Your task to perform on an android device: open app "Life360: Find Family & Friends" (install if not already installed) and go to login screen Image 0: 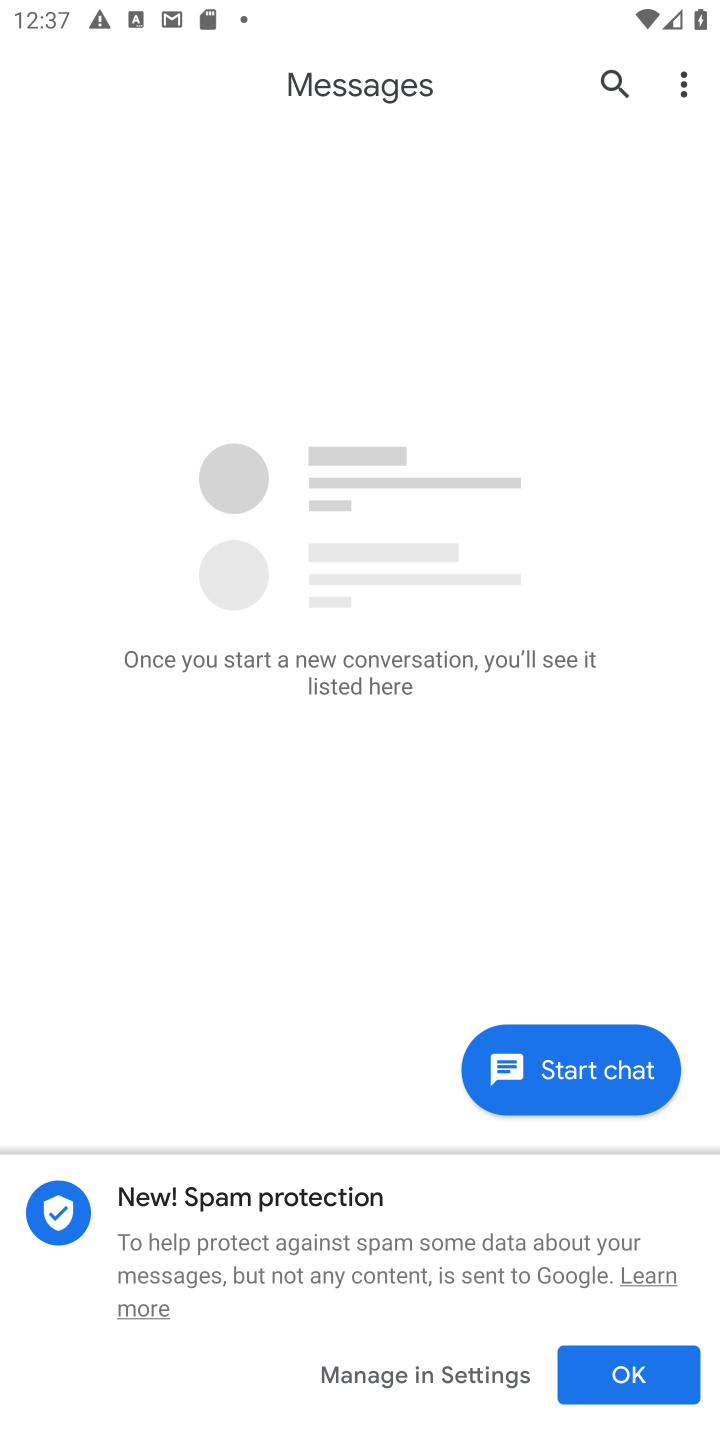
Step 0: press home button
Your task to perform on an android device: open app "Life360: Find Family & Friends" (install if not already installed) and go to login screen Image 1: 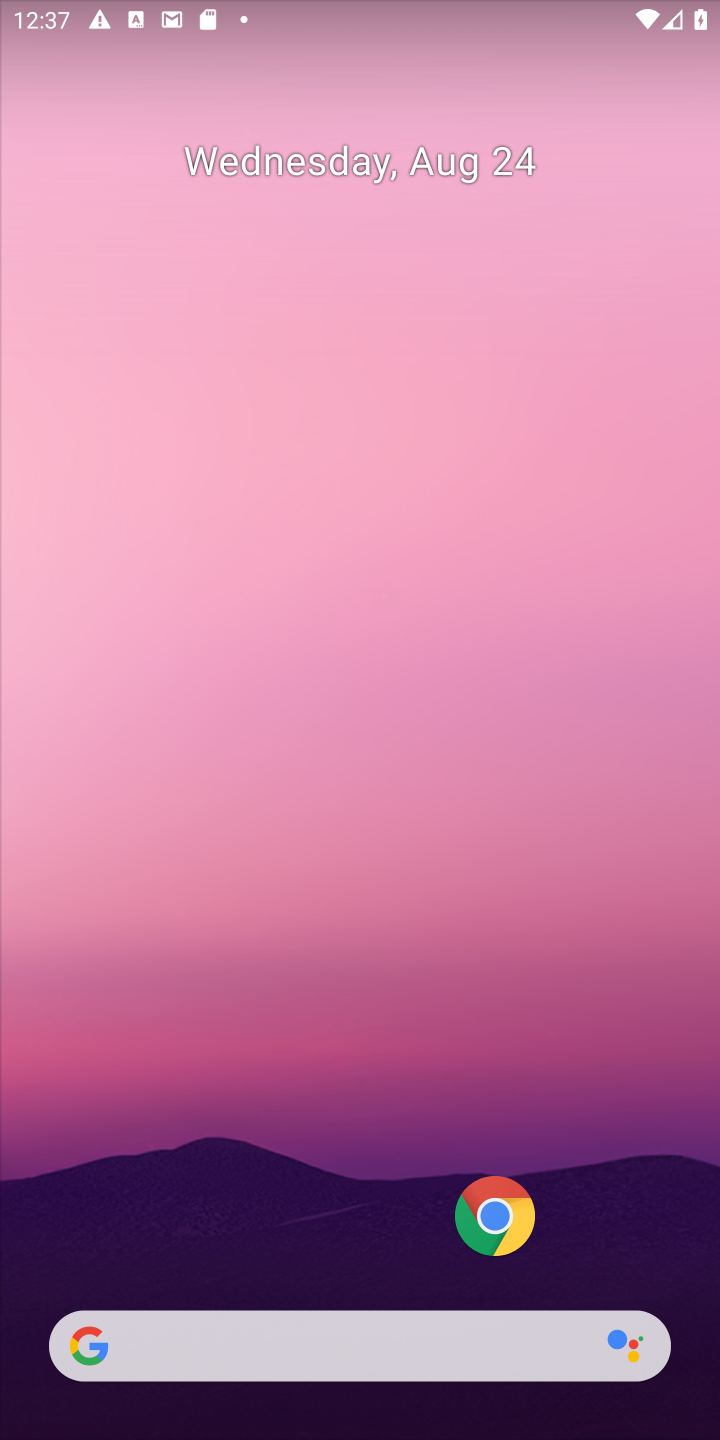
Step 1: drag from (224, 1315) to (304, 98)
Your task to perform on an android device: open app "Life360: Find Family & Friends" (install if not already installed) and go to login screen Image 2: 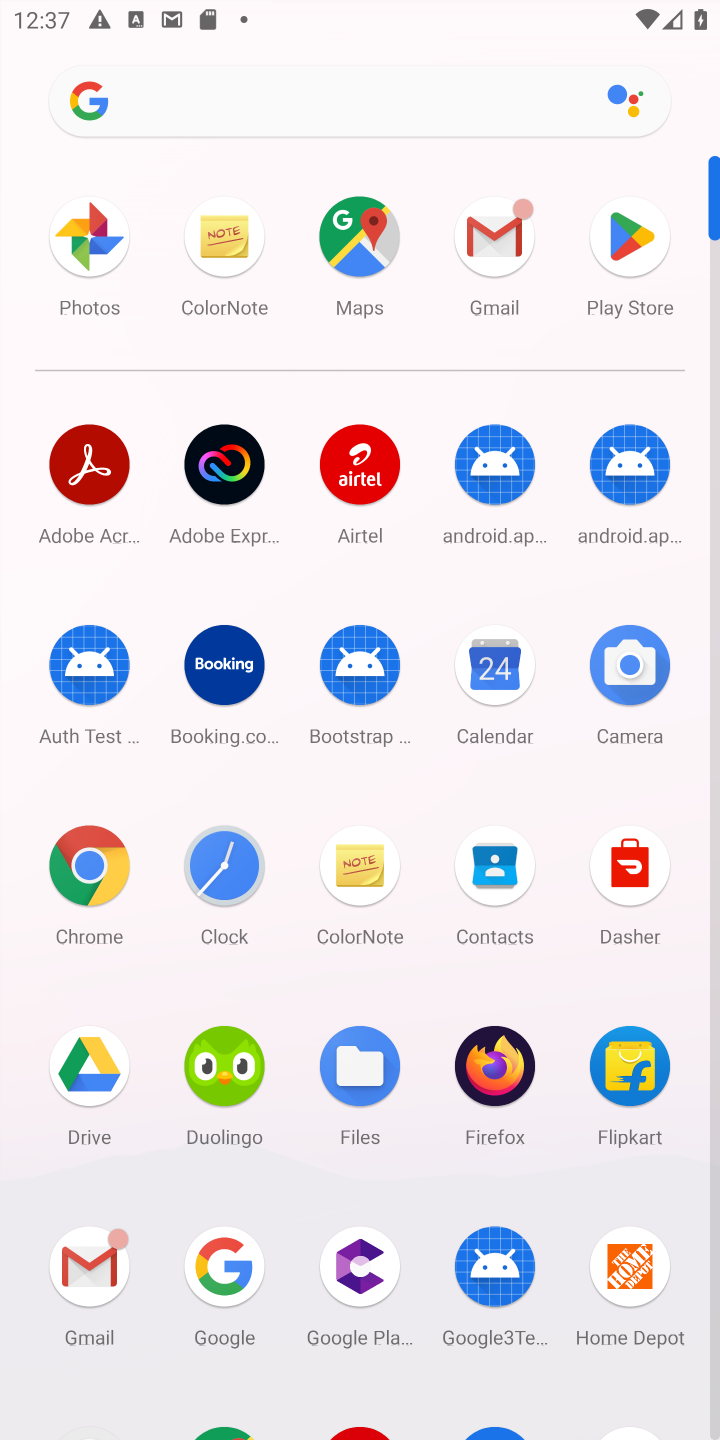
Step 2: click (631, 244)
Your task to perform on an android device: open app "Life360: Find Family & Friends" (install if not already installed) and go to login screen Image 3: 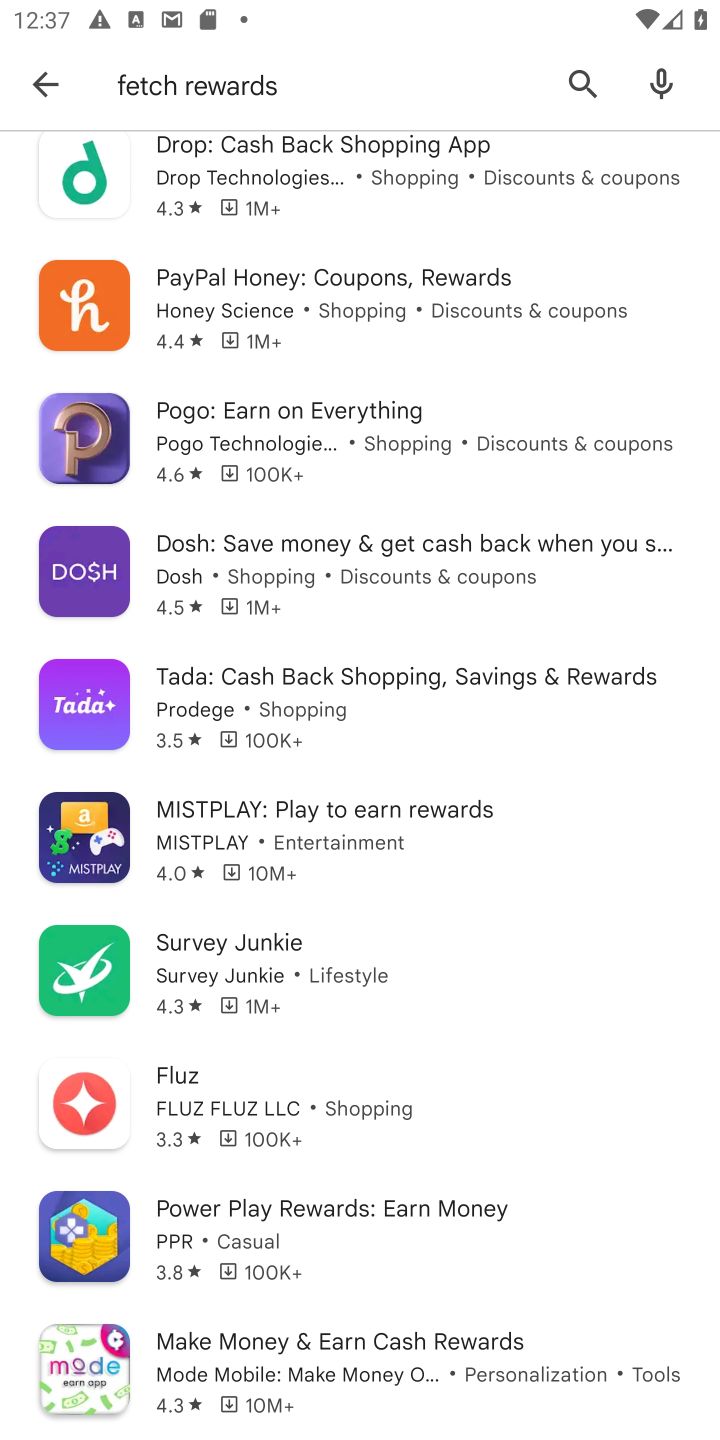
Step 3: press back button
Your task to perform on an android device: open app "Life360: Find Family & Friends" (install if not already installed) and go to login screen Image 4: 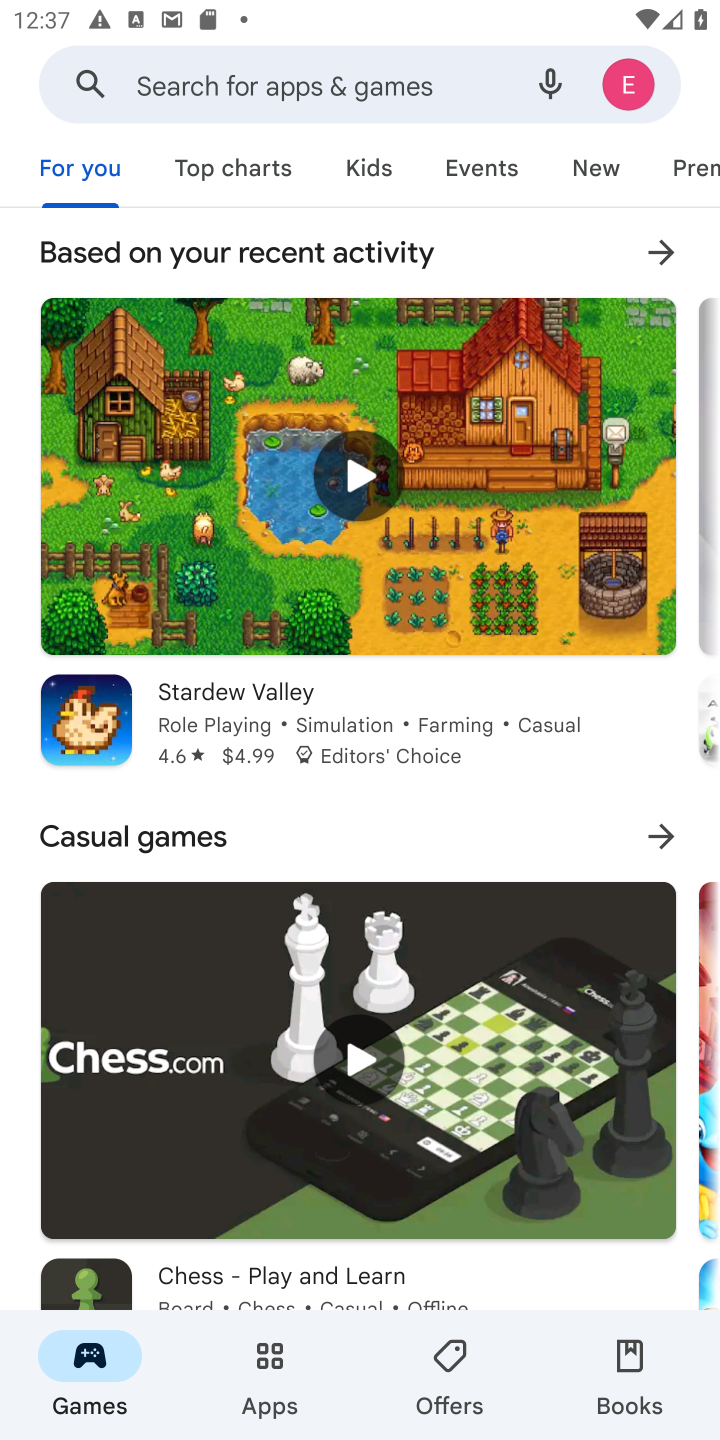
Step 4: click (403, 86)
Your task to perform on an android device: open app "Life360: Find Family & Friends" (install if not already installed) and go to login screen Image 5: 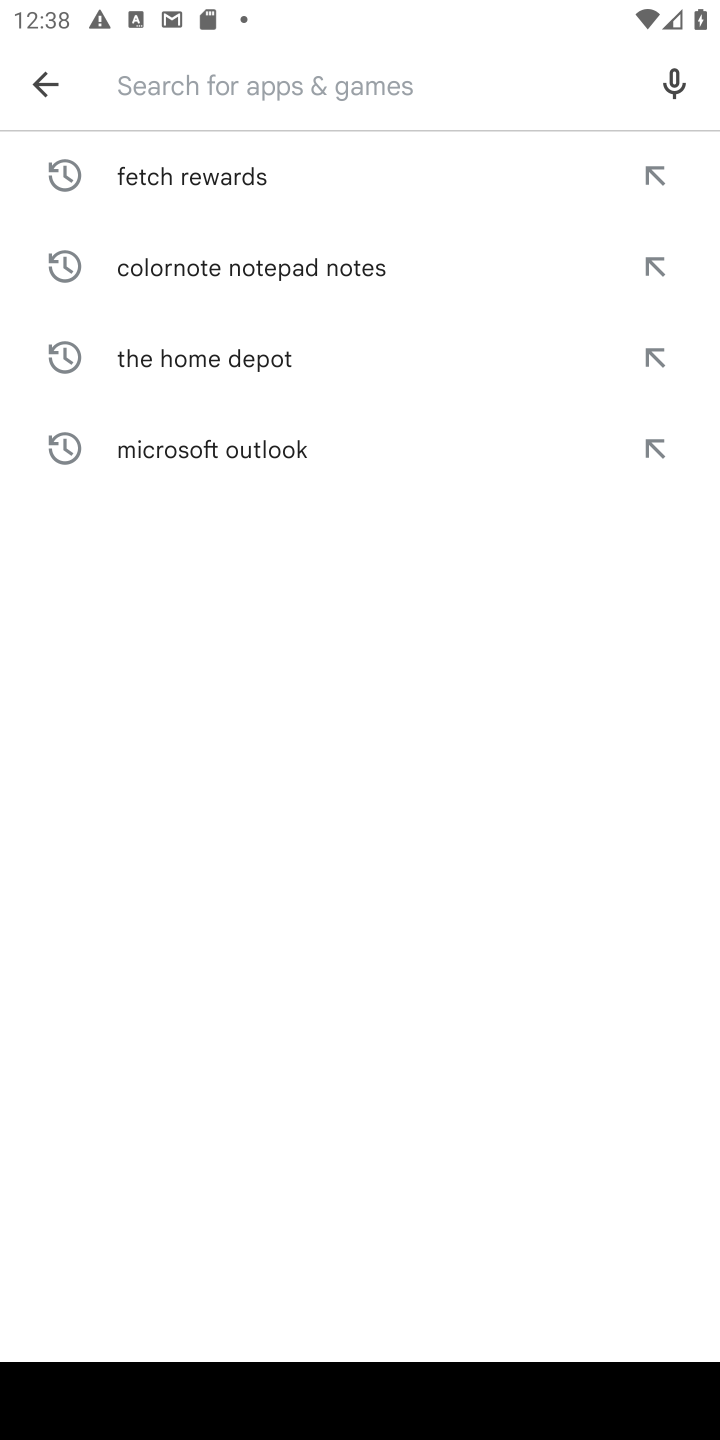
Step 5: type "Life360: Find Family & Friends"
Your task to perform on an android device: open app "Life360: Find Family & Friends" (install if not already installed) and go to login screen Image 6: 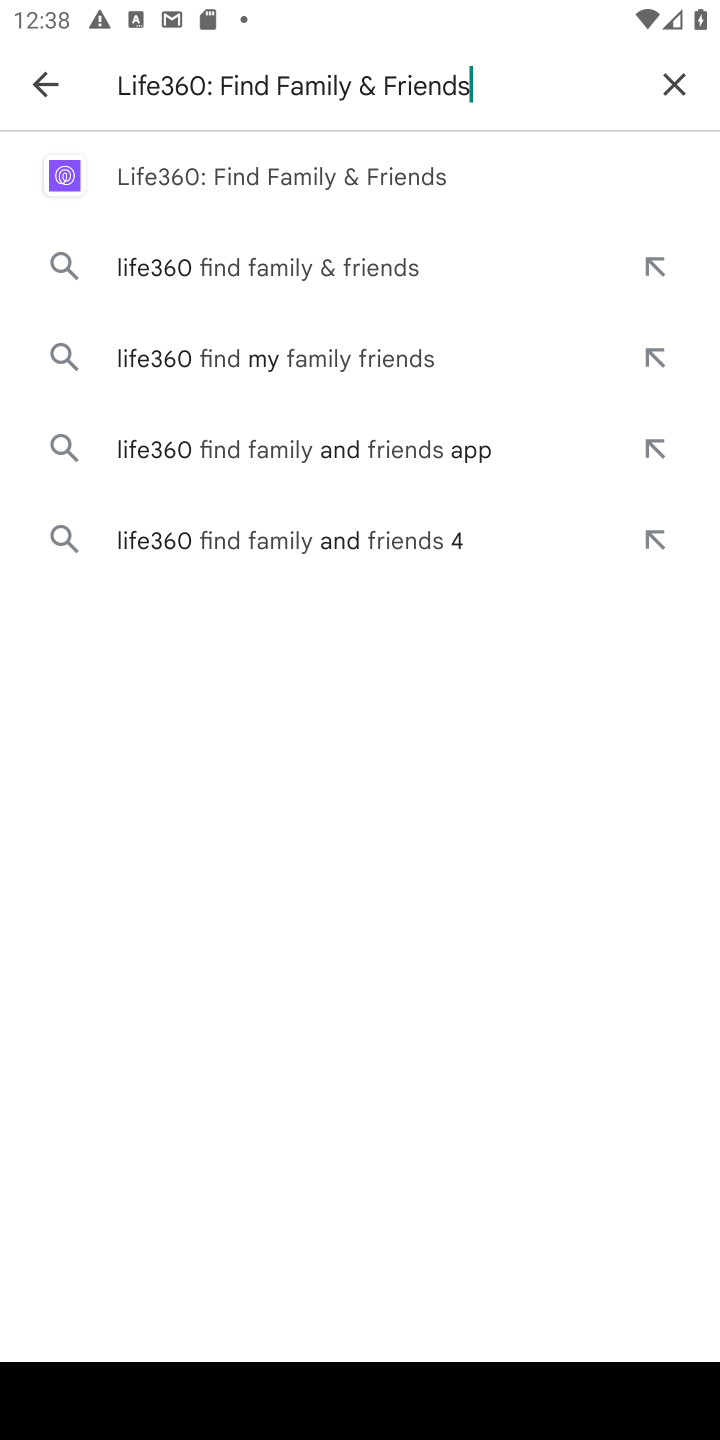
Step 6: click (271, 180)
Your task to perform on an android device: open app "Life360: Find Family & Friends" (install if not already installed) and go to login screen Image 7: 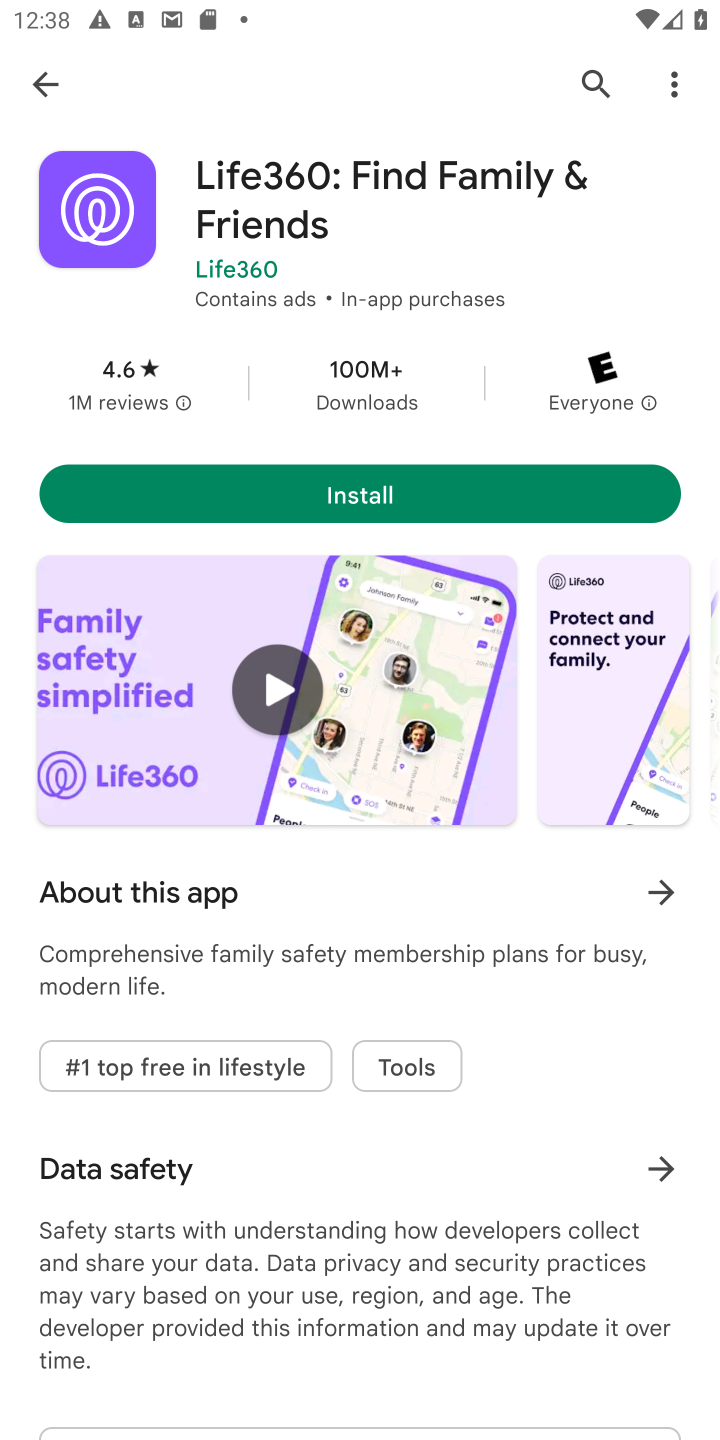
Step 7: click (400, 490)
Your task to perform on an android device: open app "Life360: Find Family & Friends" (install if not already installed) and go to login screen Image 8: 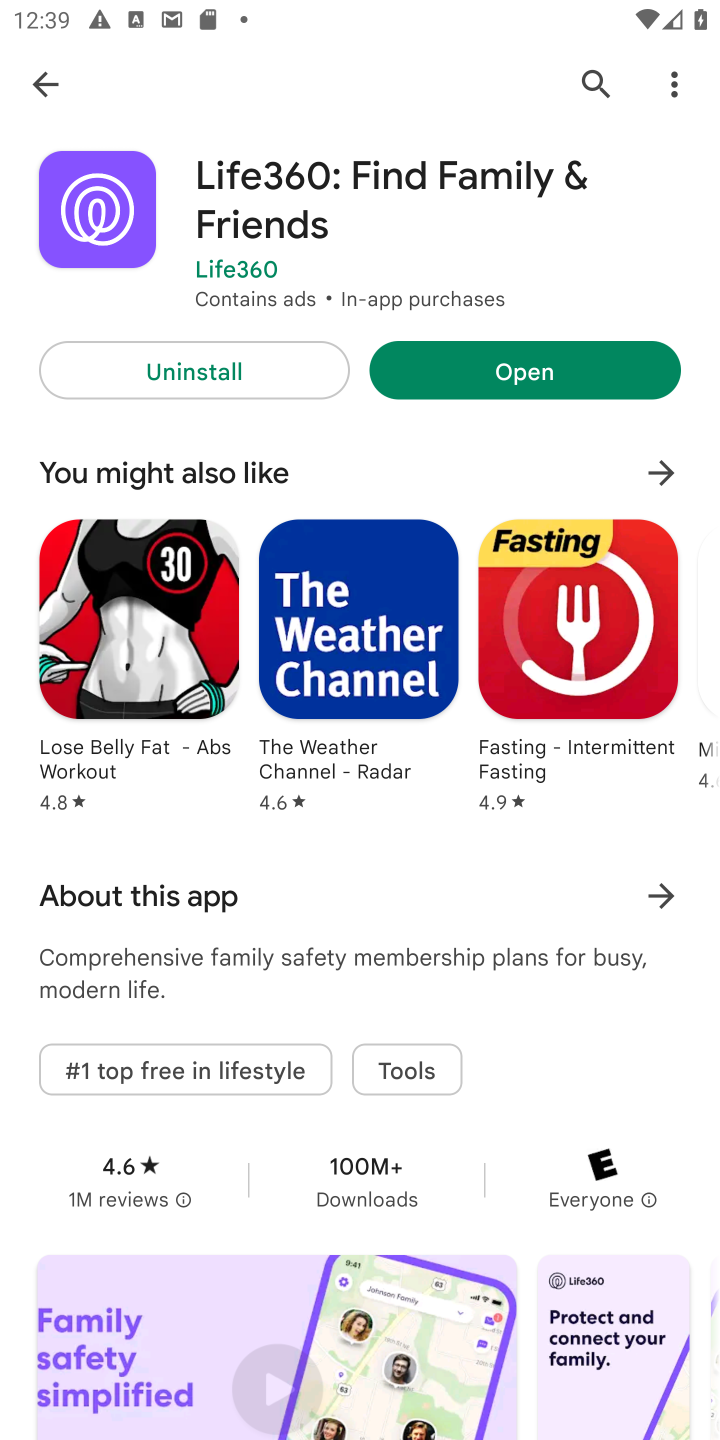
Step 8: click (526, 367)
Your task to perform on an android device: open app "Life360: Find Family & Friends" (install if not already installed) and go to login screen Image 9: 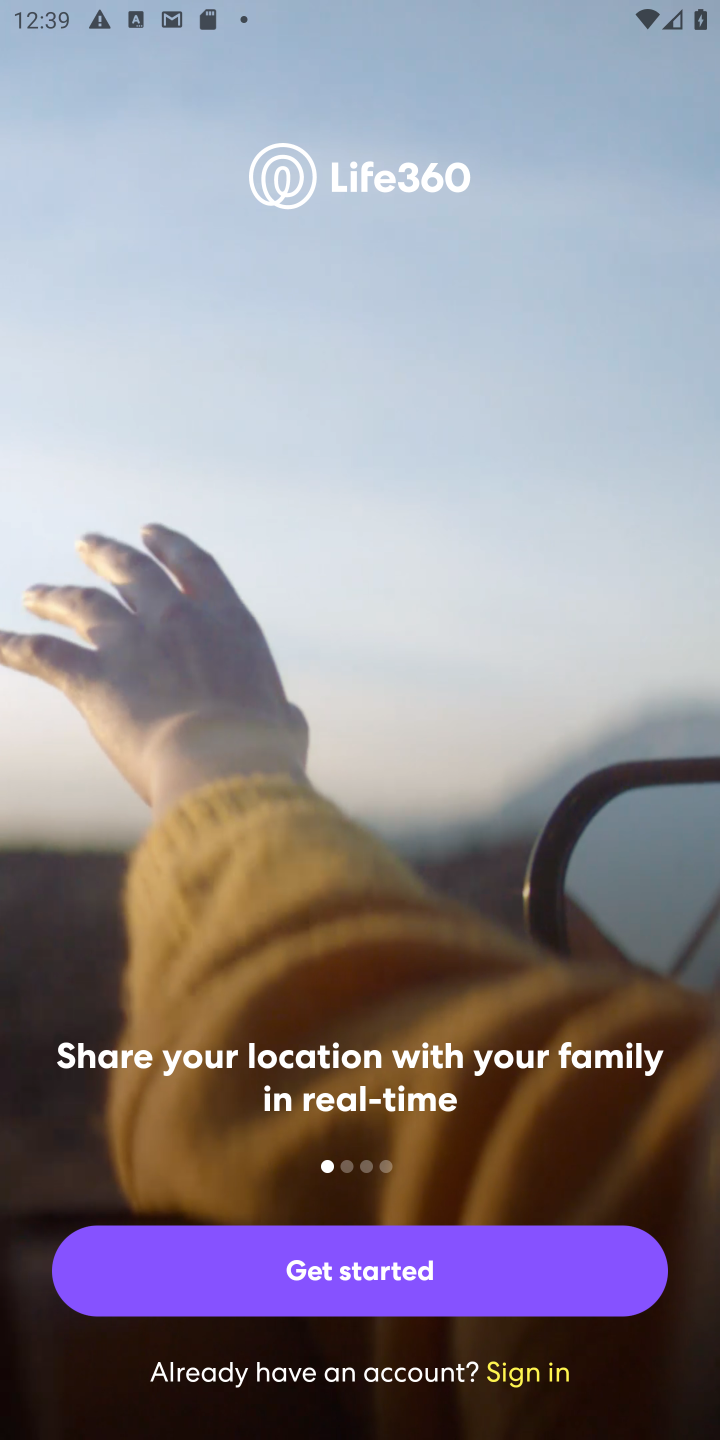
Step 9: click (546, 1370)
Your task to perform on an android device: open app "Life360: Find Family & Friends" (install if not already installed) and go to login screen Image 10: 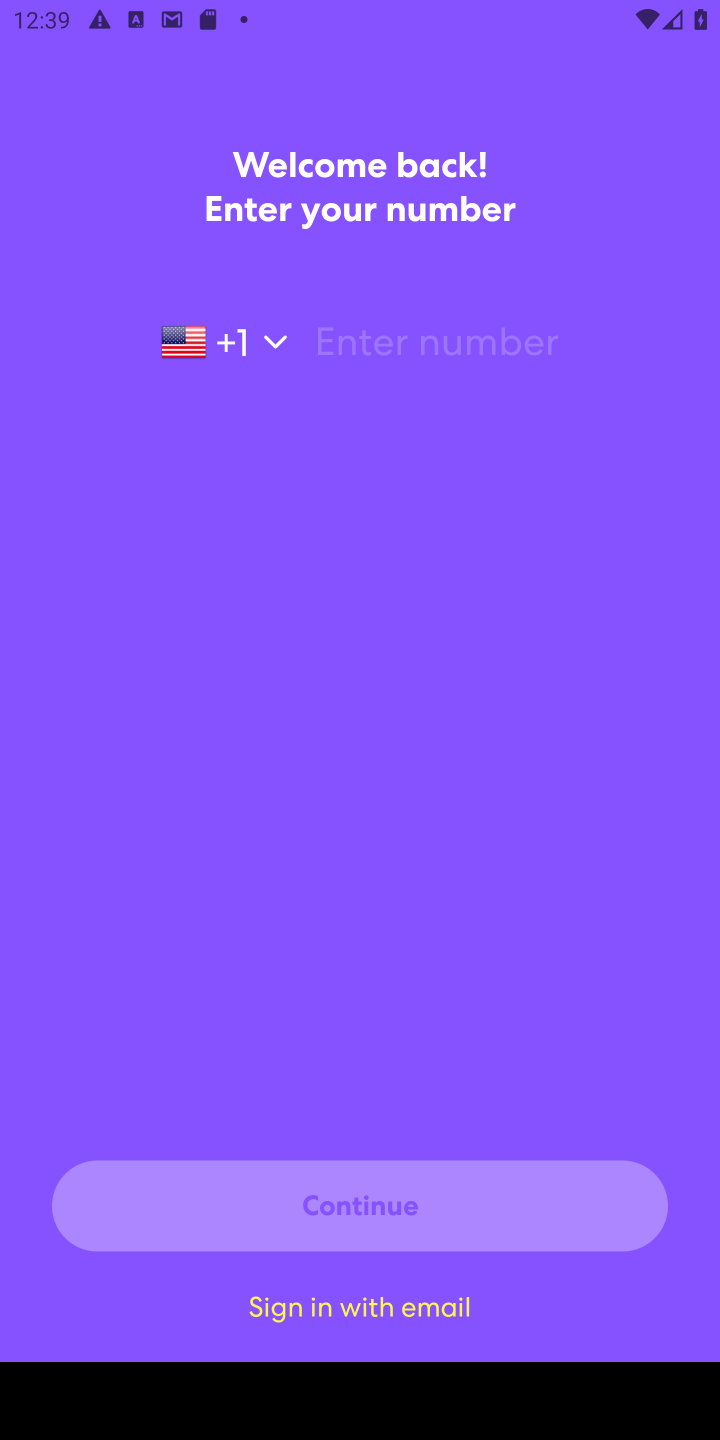
Step 10: click (348, 1303)
Your task to perform on an android device: open app "Life360: Find Family & Friends" (install if not already installed) and go to login screen Image 11: 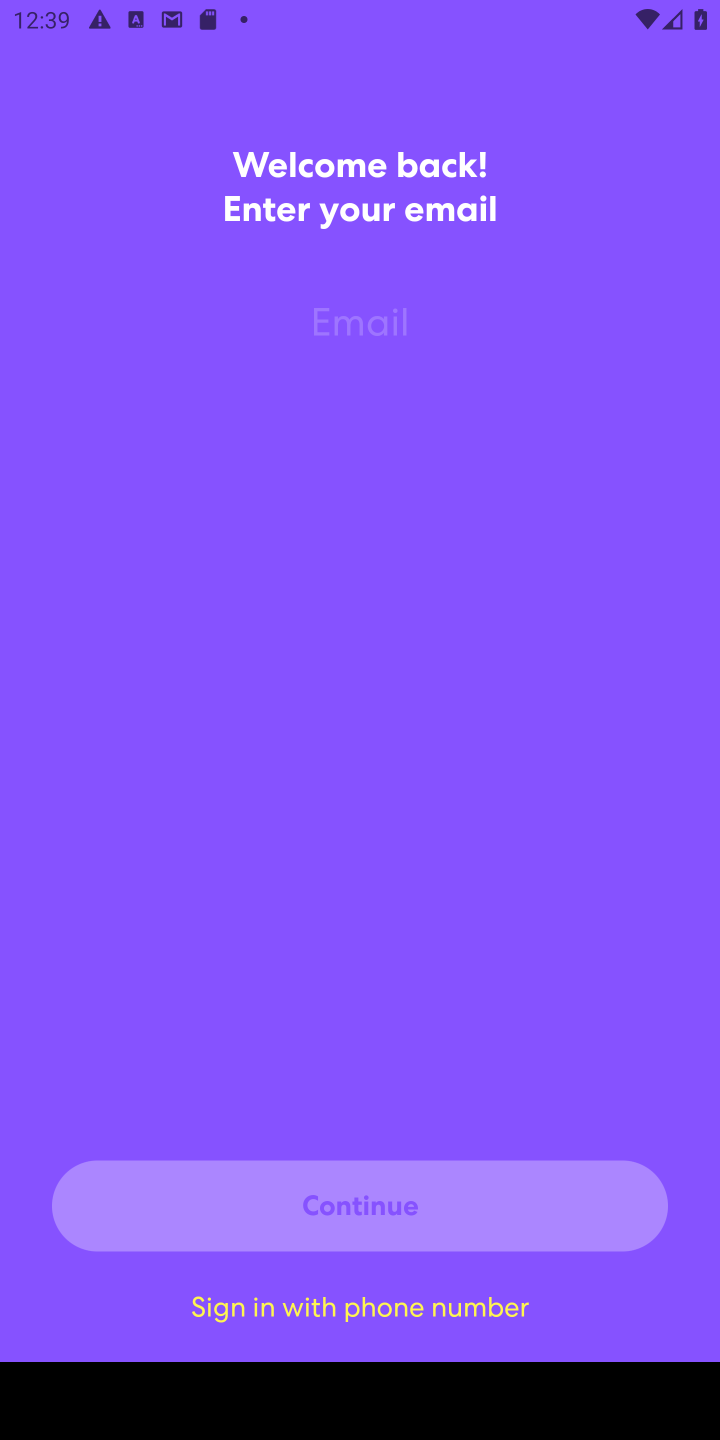
Step 11: task complete